Your task to perform on an android device: Go to network settings Image 0: 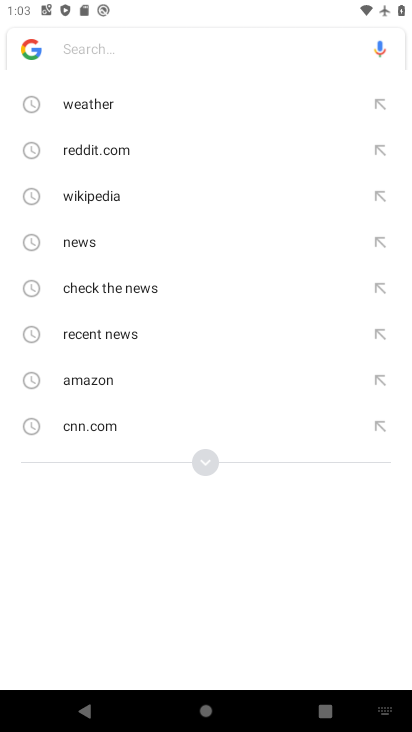
Step 0: press home button
Your task to perform on an android device: Go to network settings Image 1: 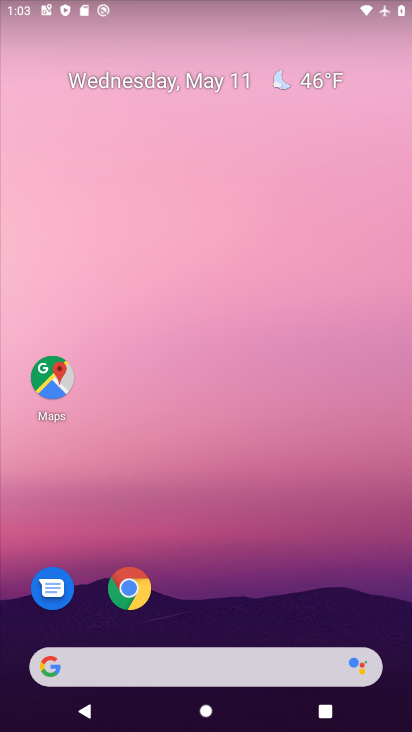
Step 1: drag from (209, 538) to (233, 166)
Your task to perform on an android device: Go to network settings Image 2: 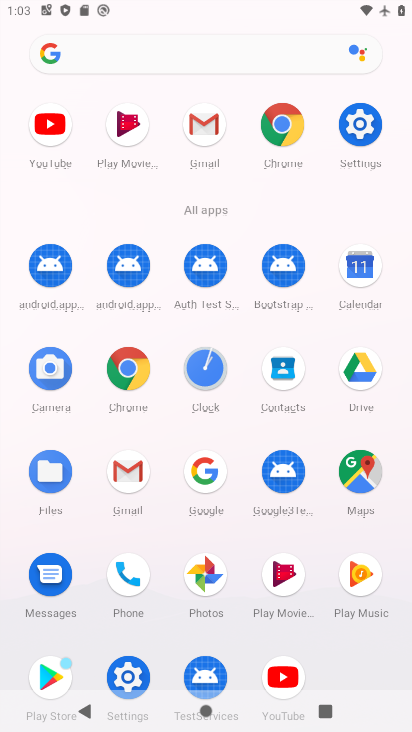
Step 2: click (357, 119)
Your task to perform on an android device: Go to network settings Image 3: 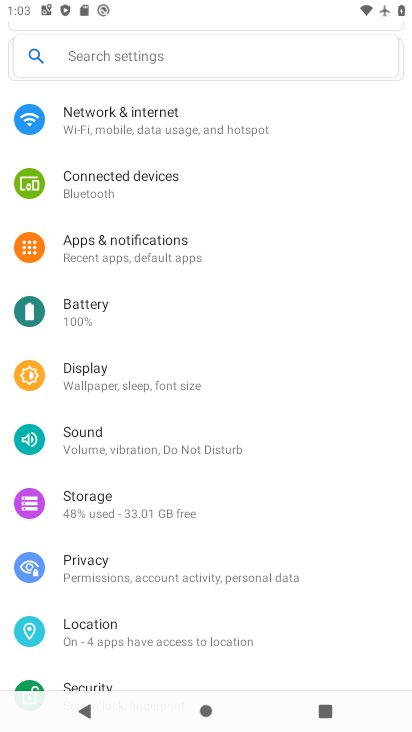
Step 3: click (181, 131)
Your task to perform on an android device: Go to network settings Image 4: 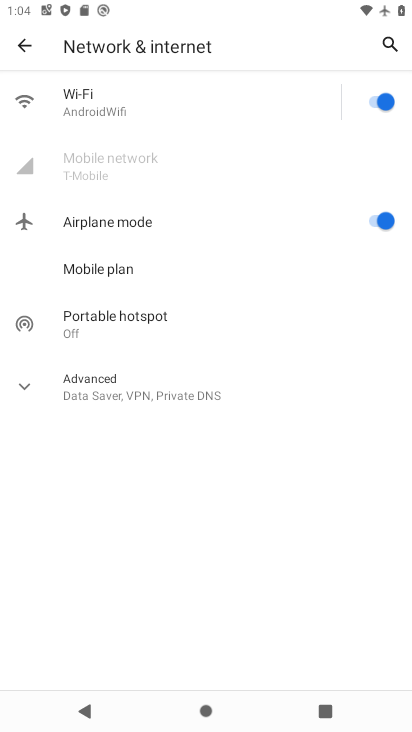
Step 4: task complete